Your task to perform on an android device: star an email in the gmail app Image 0: 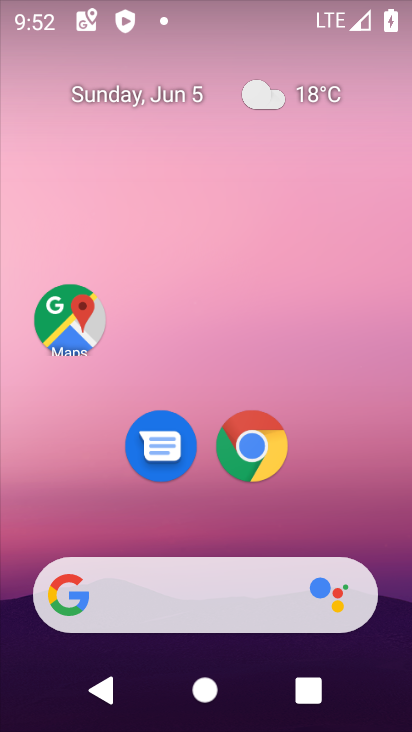
Step 0: click (220, 121)
Your task to perform on an android device: star an email in the gmail app Image 1: 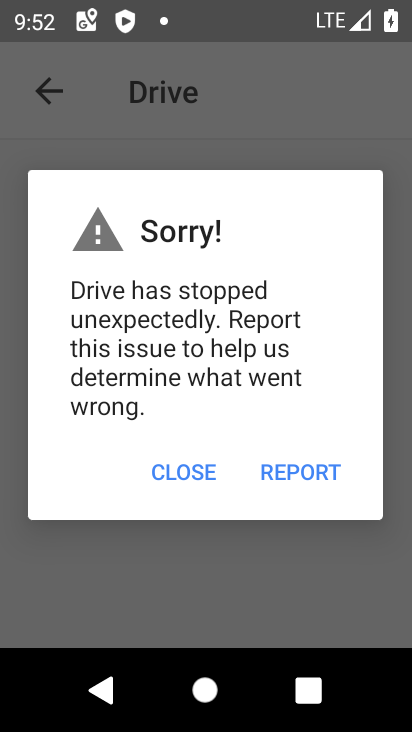
Step 1: click (194, 471)
Your task to perform on an android device: star an email in the gmail app Image 2: 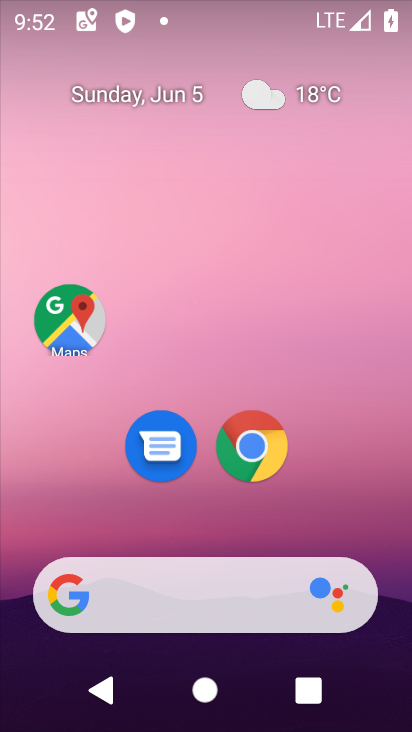
Step 2: drag from (210, 518) to (230, 189)
Your task to perform on an android device: star an email in the gmail app Image 3: 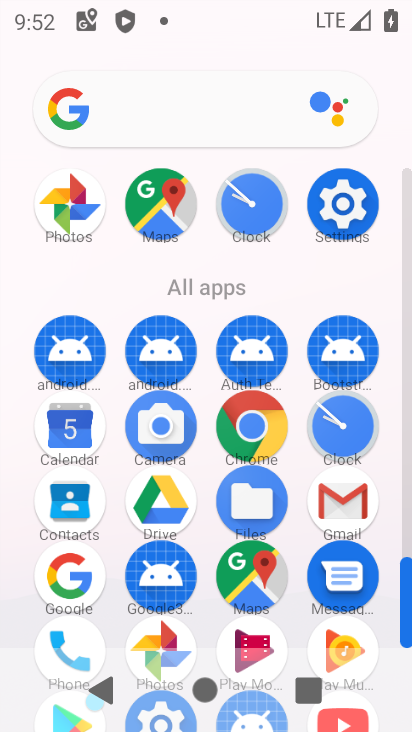
Step 3: click (351, 496)
Your task to perform on an android device: star an email in the gmail app Image 4: 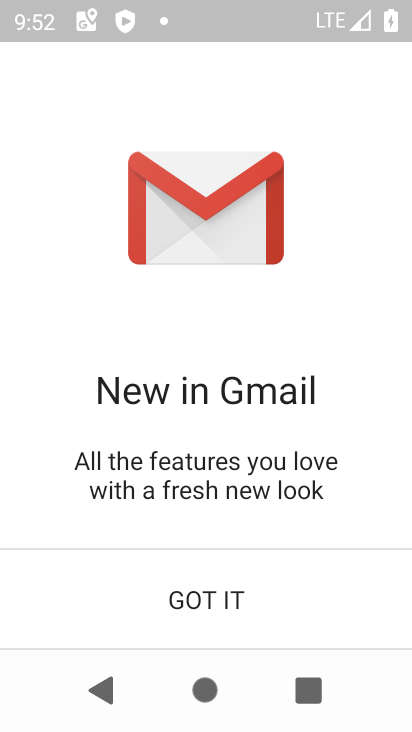
Step 4: click (204, 578)
Your task to perform on an android device: star an email in the gmail app Image 5: 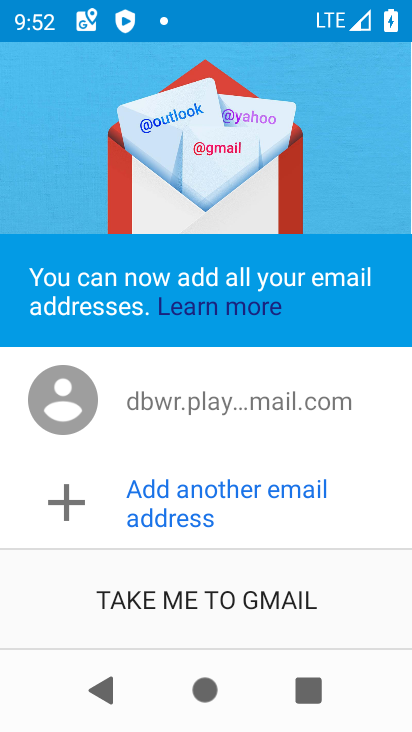
Step 5: click (245, 600)
Your task to perform on an android device: star an email in the gmail app Image 6: 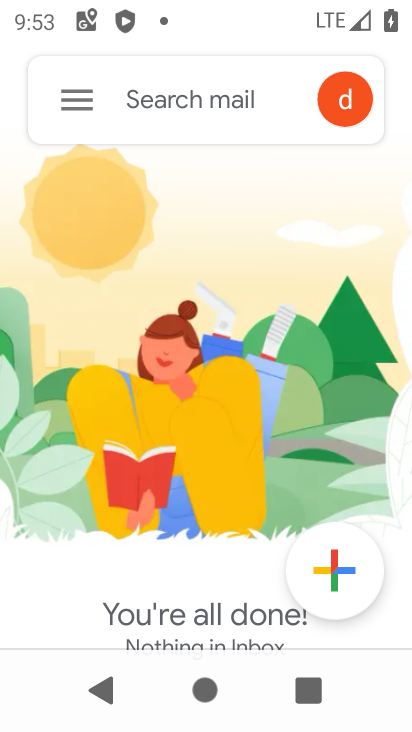
Step 6: click (84, 99)
Your task to perform on an android device: star an email in the gmail app Image 7: 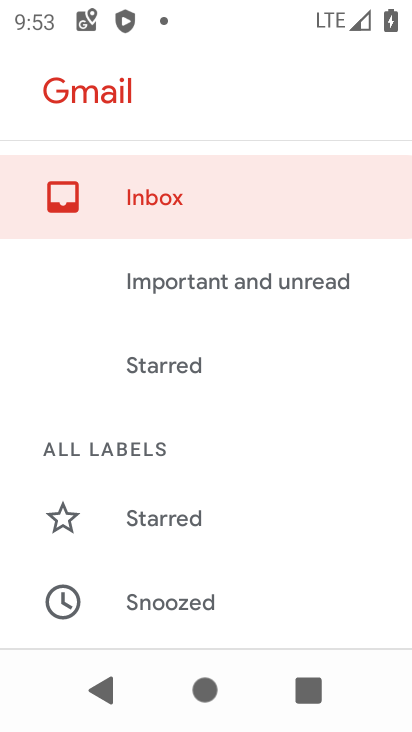
Step 7: drag from (189, 568) to (190, 357)
Your task to perform on an android device: star an email in the gmail app Image 8: 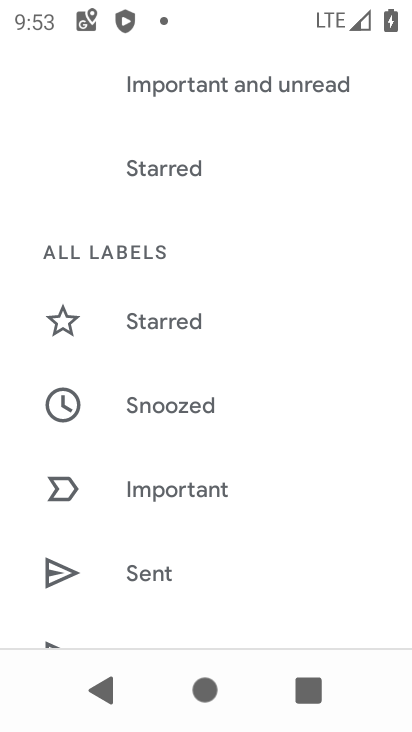
Step 8: drag from (164, 579) to (176, 356)
Your task to perform on an android device: star an email in the gmail app Image 9: 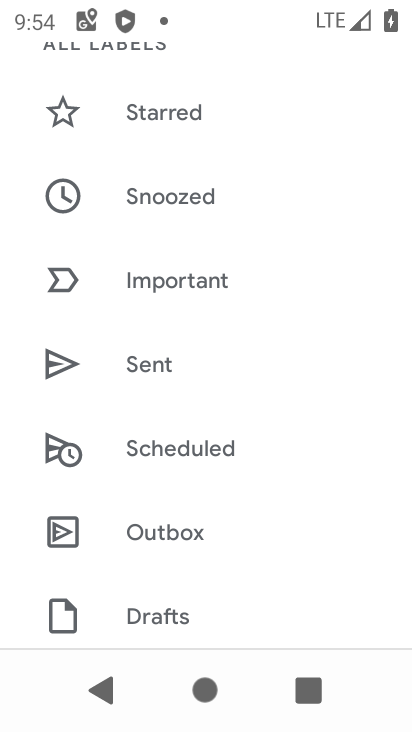
Step 9: click (179, 349)
Your task to perform on an android device: star an email in the gmail app Image 10: 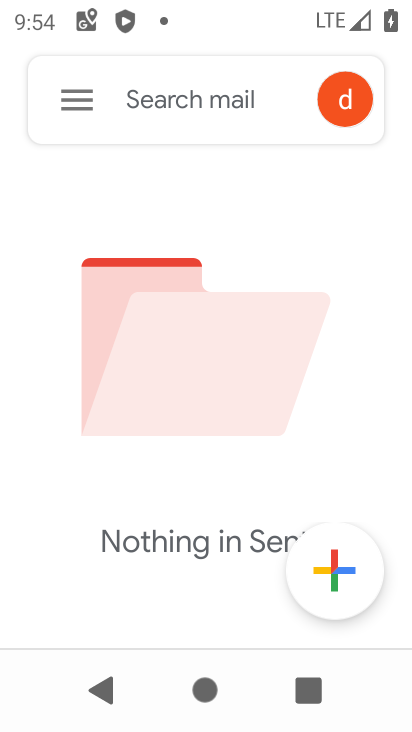
Step 10: click (77, 108)
Your task to perform on an android device: star an email in the gmail app Image 11: 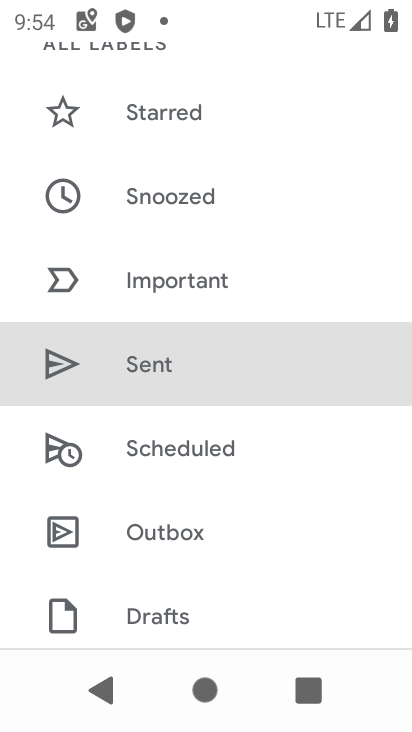
Step 11: drag from (166, 558) to (165, 223)
Your task to perform on an android device: star an email in the gmail app Image 12: 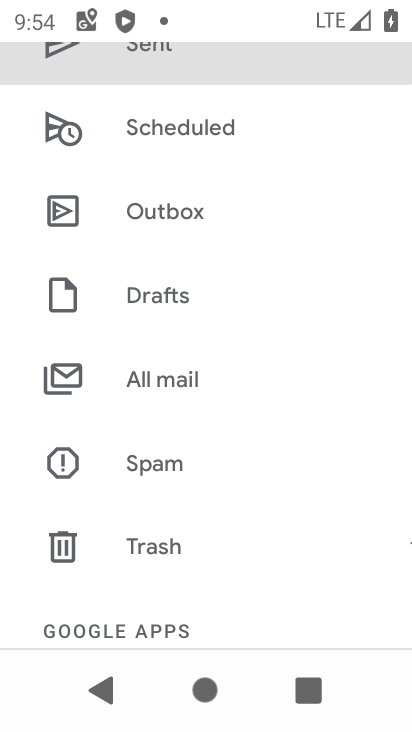
Step 12: click (164, 391)
Your task to perform on an android device: star an email in the gmail app Image 13: 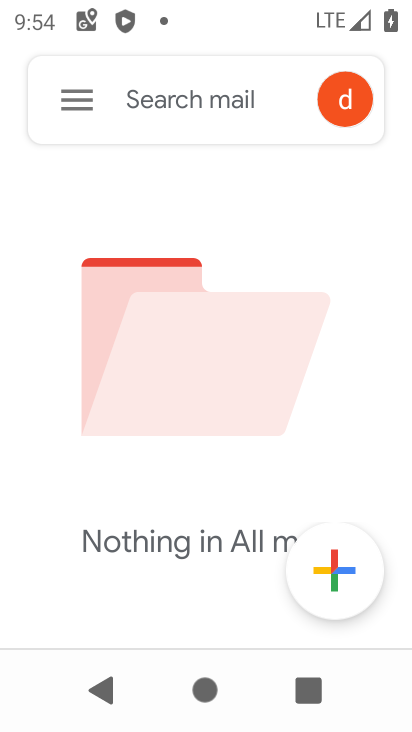
Step 13: task complete